Your task to perform on an android device: turn off wifi Image 0: 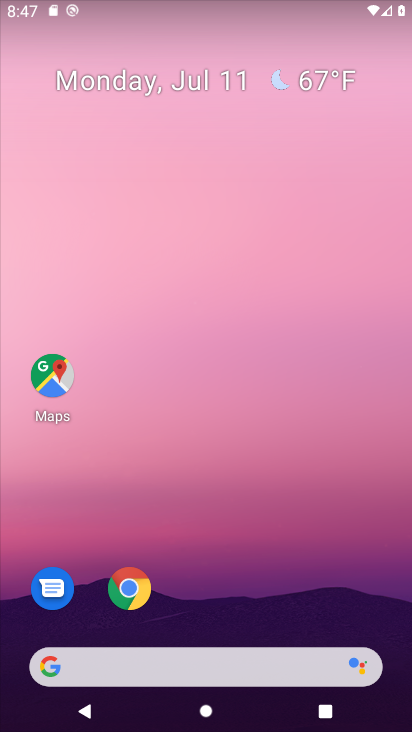
Step 0: drag from (306, 588) to (295, 90)
Your task to perform on an android device: turn off wifi Image 1: 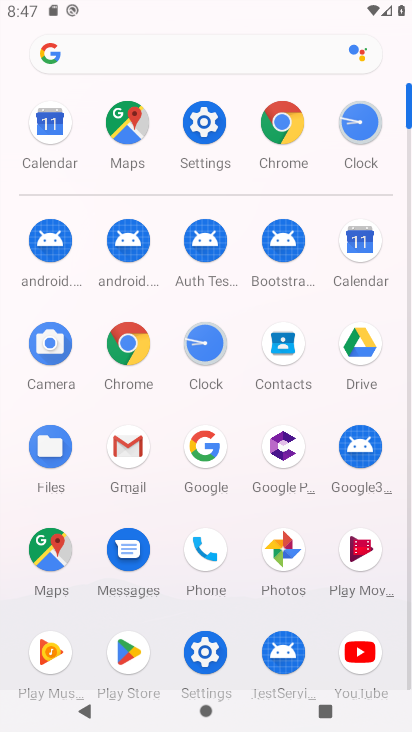
Step 1: click (212, 133)
Your task to perform on an android device: turn off wifi Image 2: 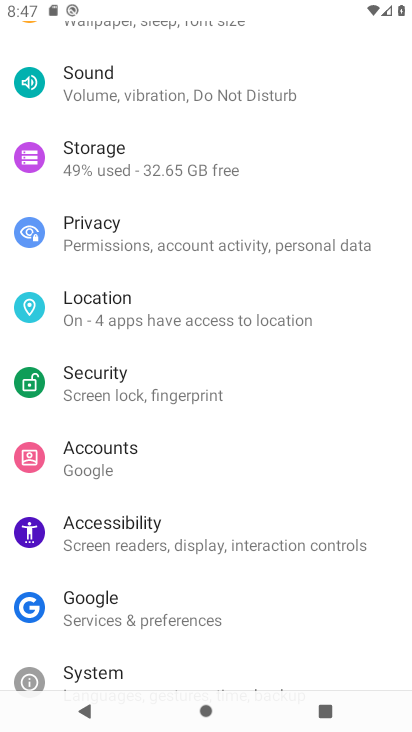
Step 2: drag from (150, 142) to (175, 540)
Your task to perform on an android device: turn off wifi Image 3: 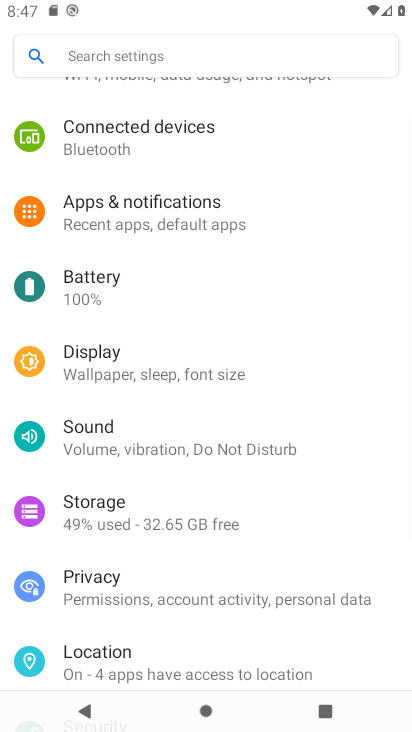
Step 3: drag from (190, 195) to (229, 672)
Your task to perform on an android device: turn off wifi Image 4: 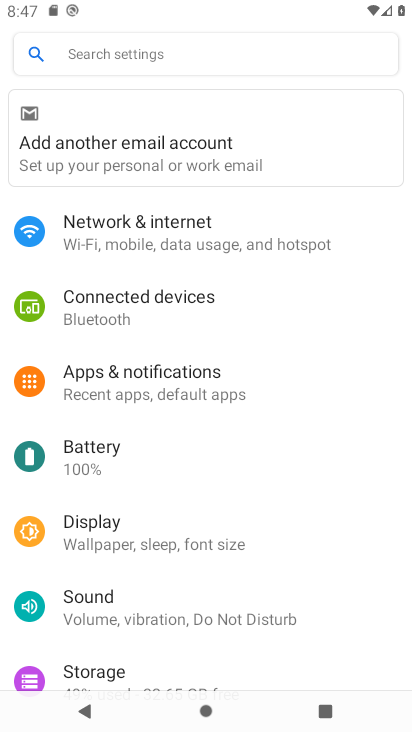
Step 4: click (293, 206)
Your task to perform on an android device: turn off wifi Image 5: 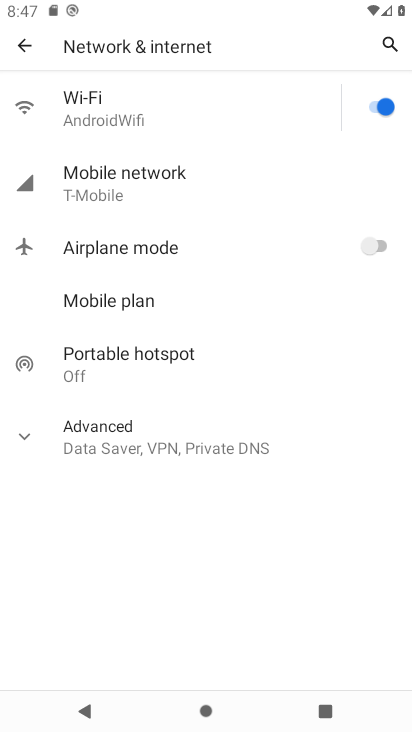
Step 5: click (373, 85)
Your task to perform on an android device: turn off wifi Image 6: 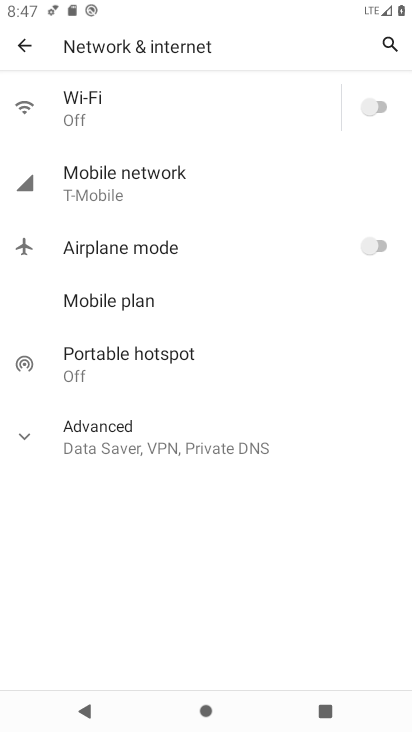
Step 6: task complete